Your task to perform on an android device: check google app version Image 0: 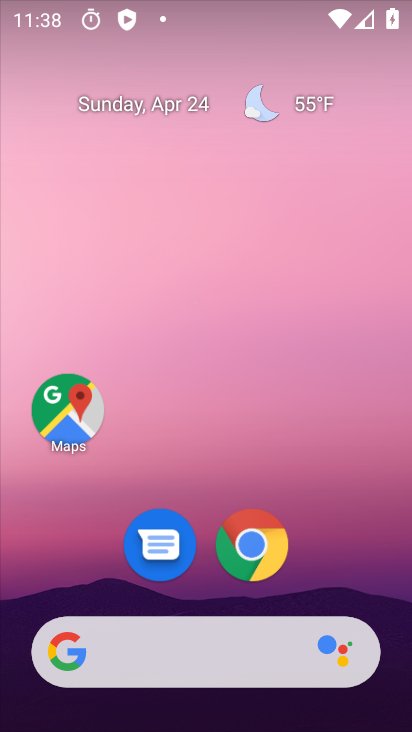
Step 0: drag from (317, 629) to (208, 123)
Your task to perform on an android device: check google app version Image 1: 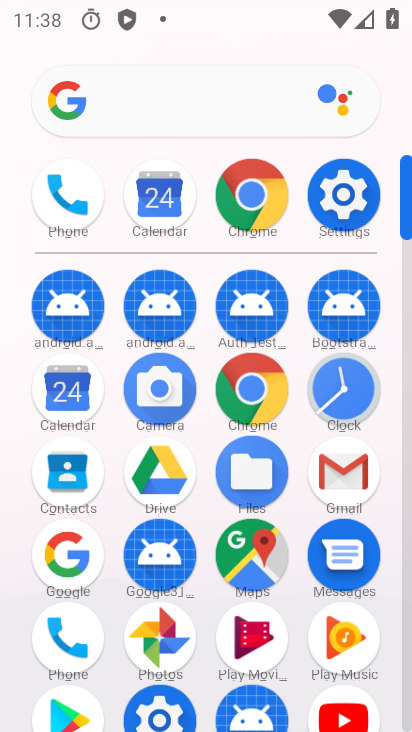
Step 1: click (247, 200)
Your task to perform on an android device: check google app version Image 2: 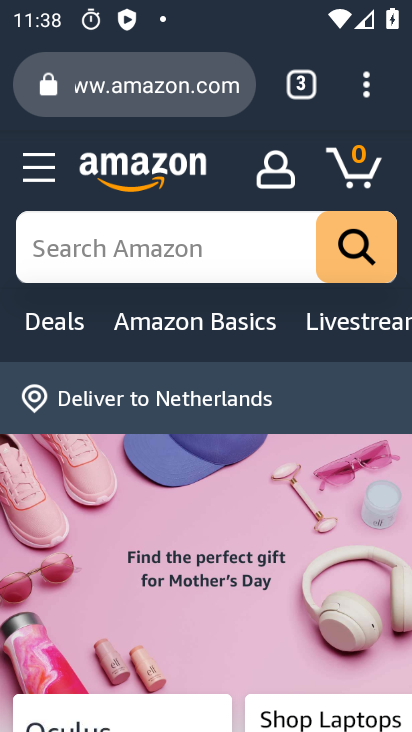
Step 2: click (363, 102)
Your task to perform on an android device: check google app version Image 3: 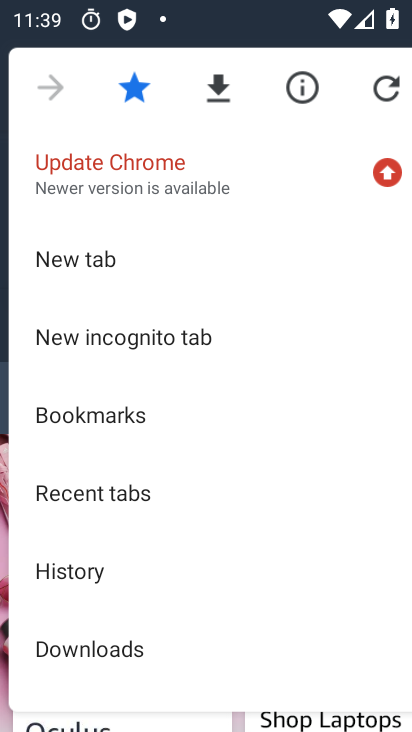
Step 3: drag from (234, 544) to (251, 185)
Your task to perform on an android device: check google app version Image 4: 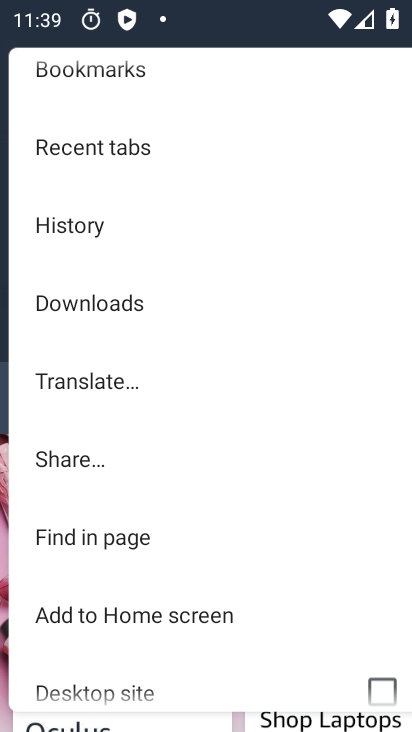
Step 4: drag from (184, 568) to (194, 365)
Your task to perform on an android device: check google app version Image 5: 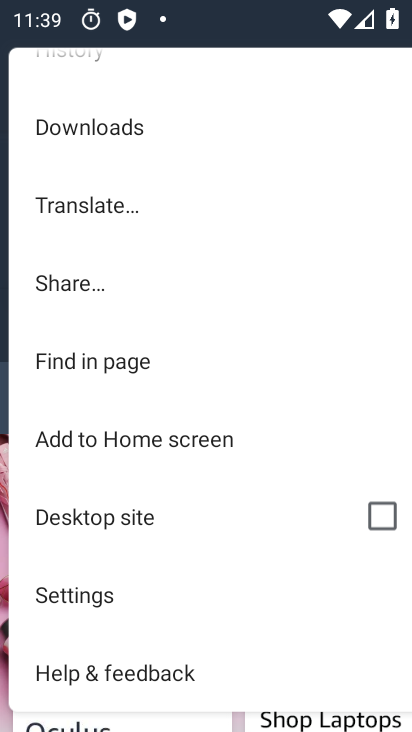
Step 5: click (124, 587)
Your task to perform on an android device: check google app version Image 6: 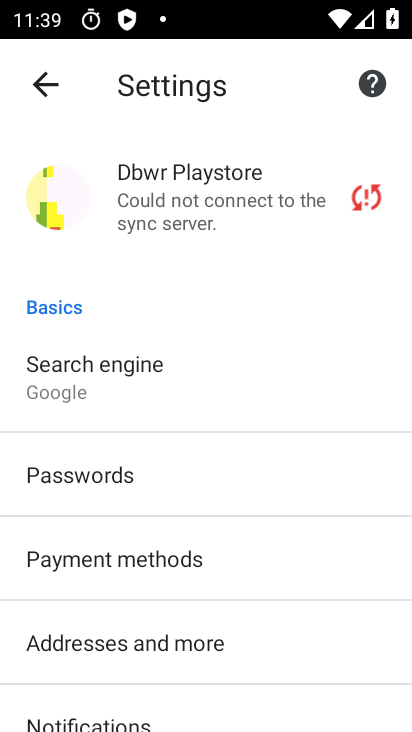
Step 6: drag from (135, 662) to (158, 302)
Your task to perform on an android device: check google app version Image 7: 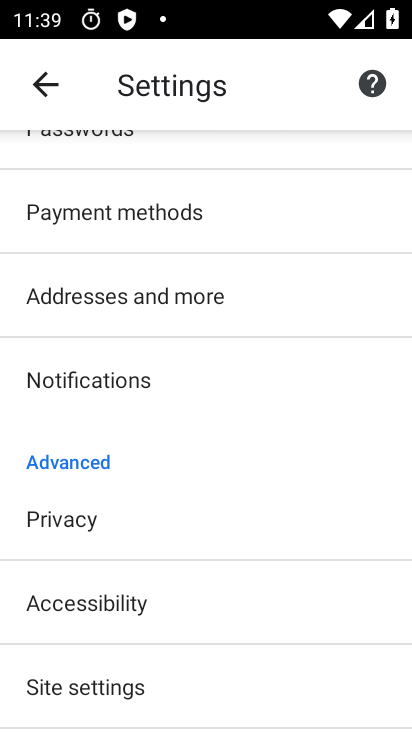
Step 7: drag from (131, 581) to (120, 227)
Your task to perform on an android device: check google app version Image 8: 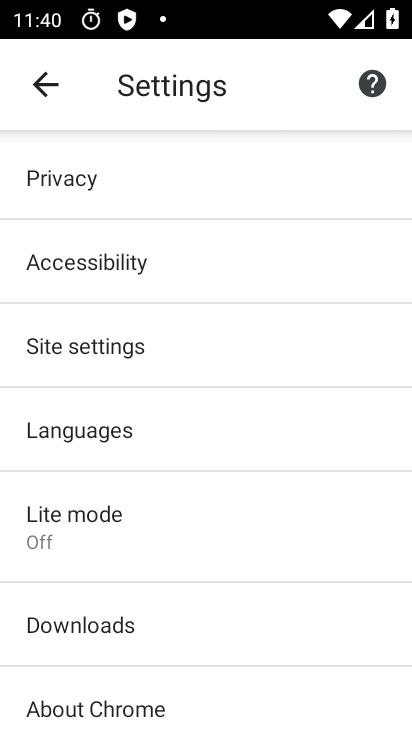
Step 8: drag from (203, 585) to (220, 426)
Your task to perform on an android device: check google app version Image 9: 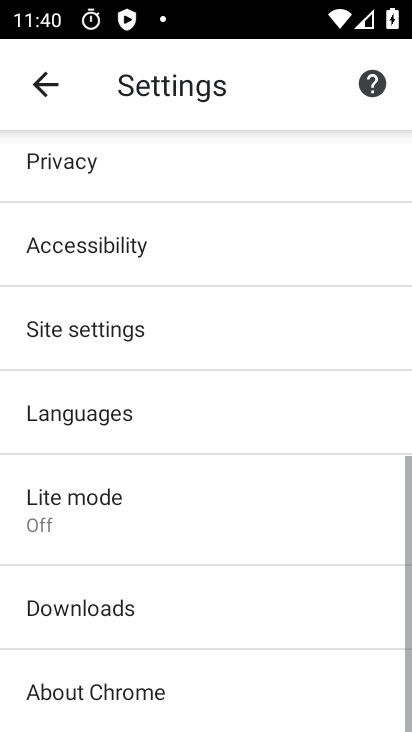
Step 9: click (128, 691)
Your task to perform on an android device: check google app version Image 10: 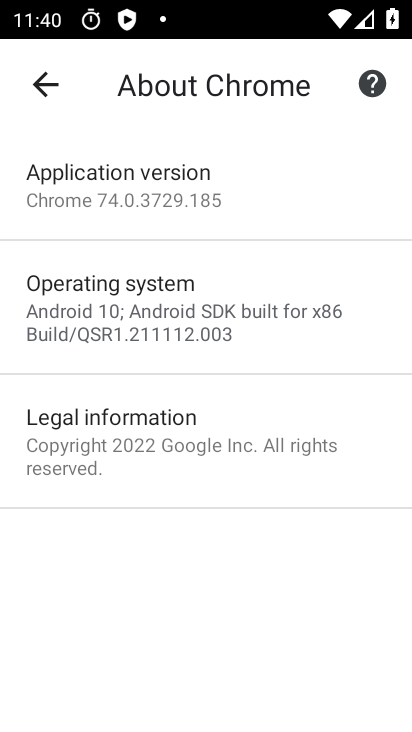
Step 10: click (160, 197)
Your task to perform on an android device: check google app version Image 11: 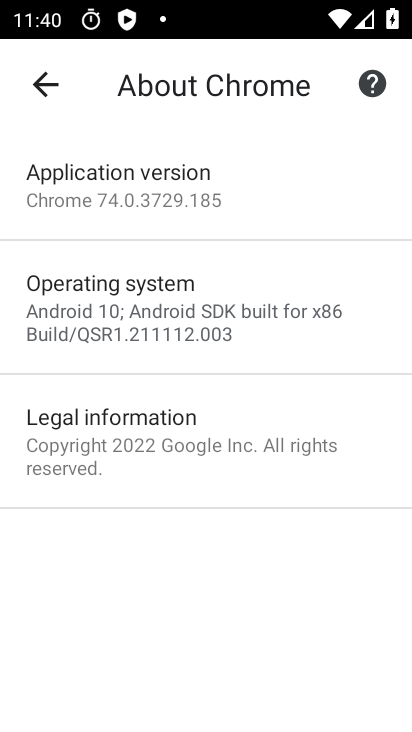
Step 11: task complete